Your task to perform on an android device: turn on wifi Image 0: 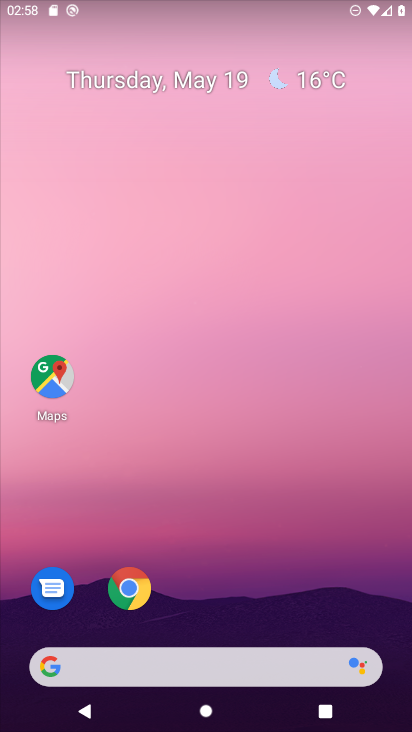
Step 0: drag from (283, 585) to (319, 8)
Your task to perform on an android device: turn on wifi Image 1: 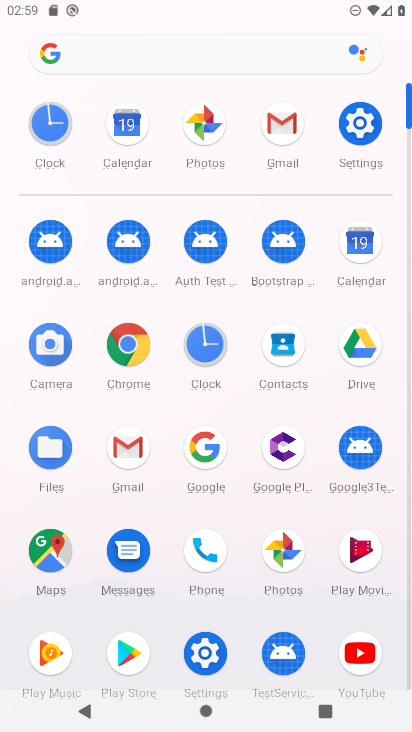
Step 1: click (365, 119)
Your task to perform on an android device: turn on wifi Image 2: 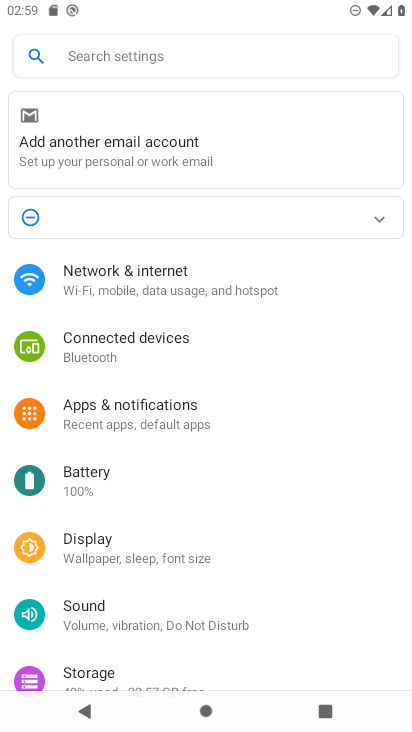
Step 2: click (119, 278)
Your task to perform on an android device: turn on wifi Image 3: 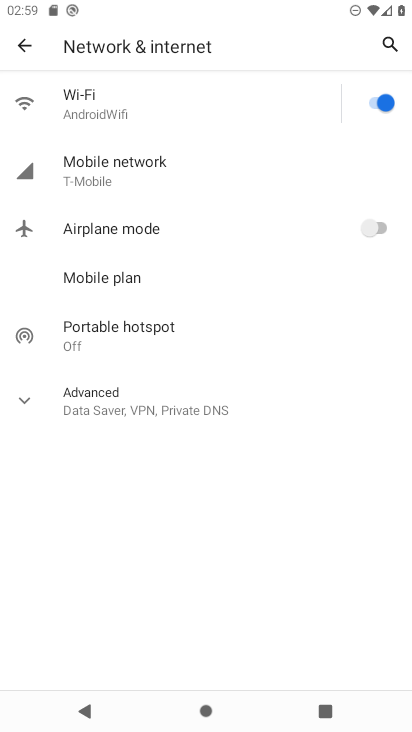
Step 3: task complete